Your task to perform on an android device: uninstall "Adobe Express: Graphic Design" Image 0: 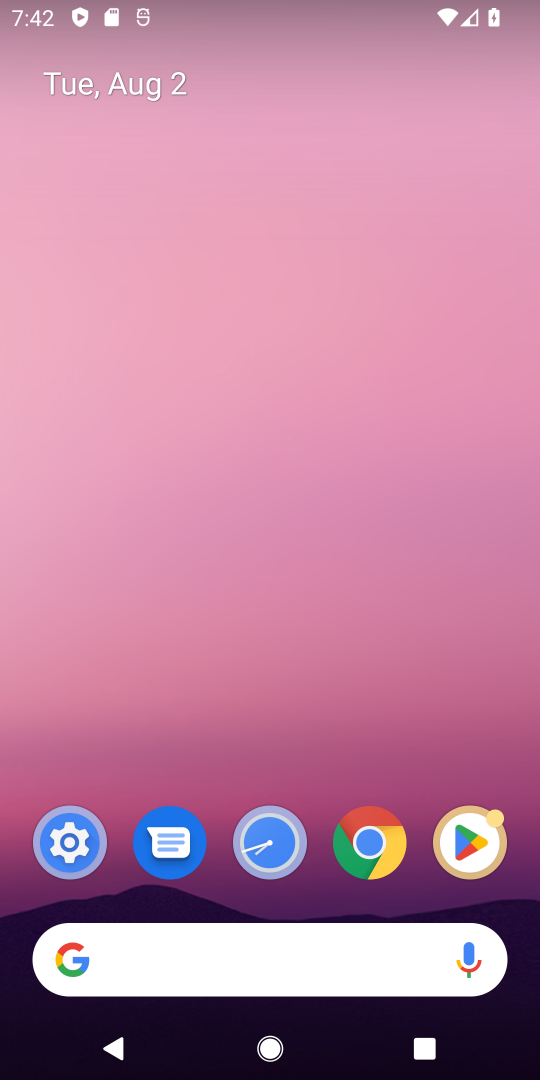
Step 0: click (460, 848)
Your task to perform on an android device: uninstall "Adobe Express: Graphic Design" Image 1: 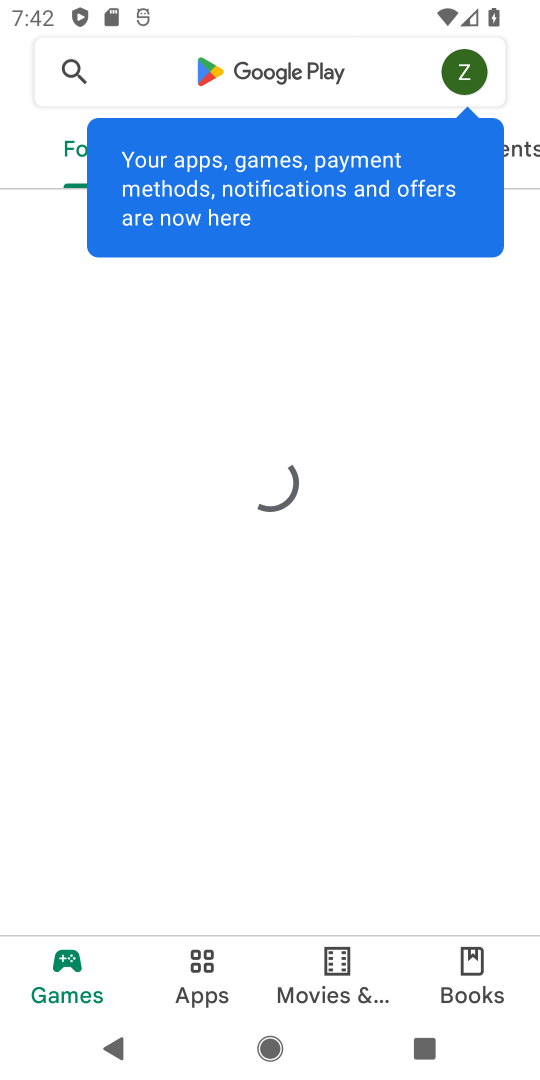
Step 1: click (235, 56)
Your task to perform on an android device: uninstall "Adobe Express: Graphic Design" Image 2: 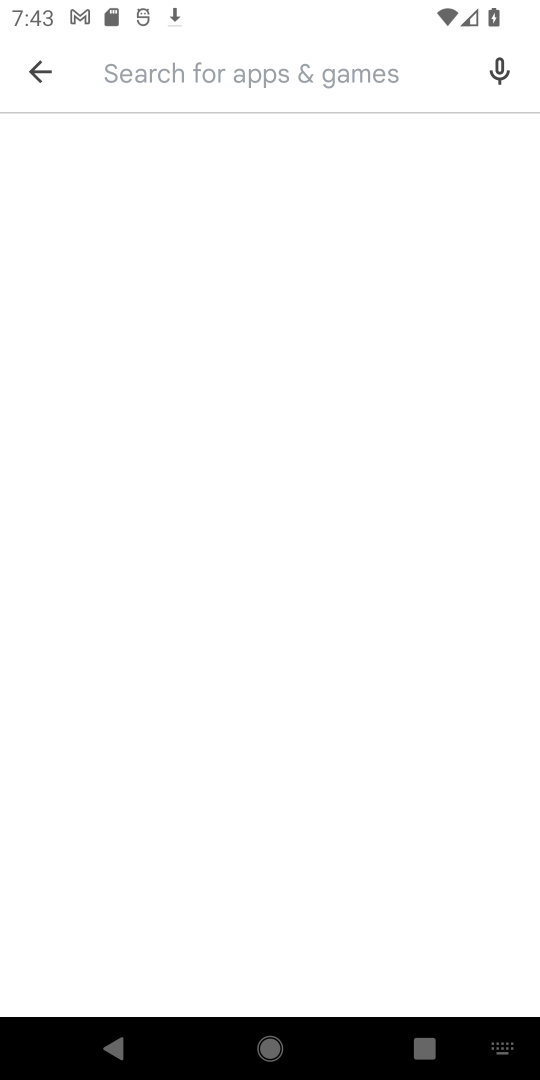
Step 2: type "Adobe Express"
Your task to perform on an android device: uninstall "Adobe Express: Graphic Design" Image 3: 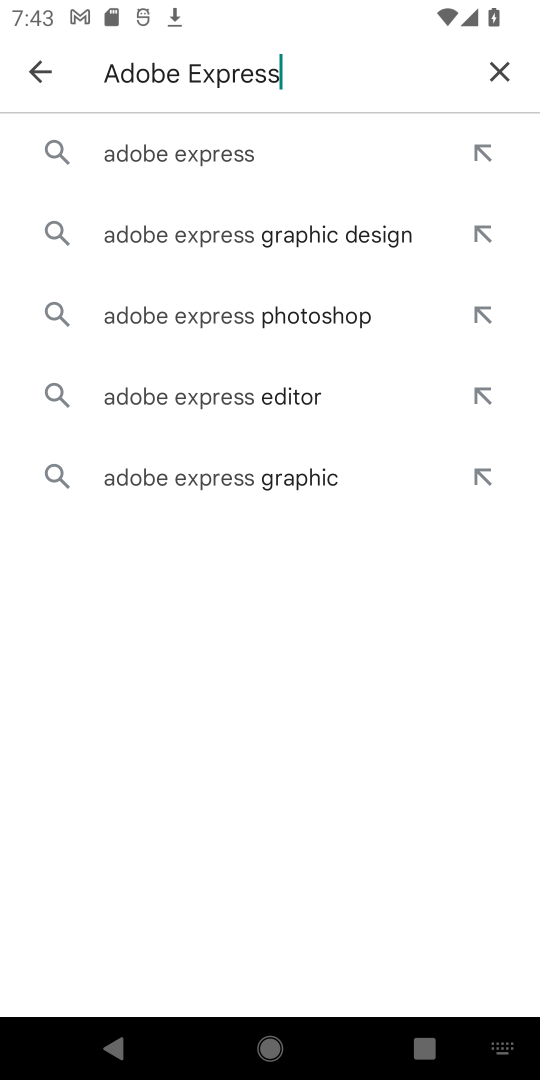
Step 3: click (282, 159)
Your task to perform on an android device: uninstall "Adobe Express: Graphic Design" Image 4: 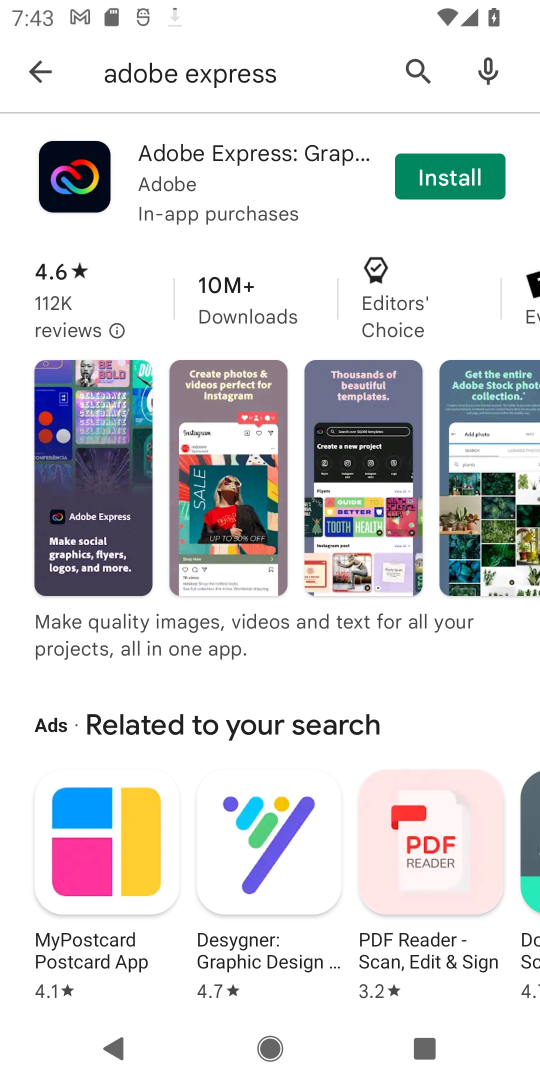
Step 4: task complete